Your task to perform on an android device: turn off wifi Image 0: 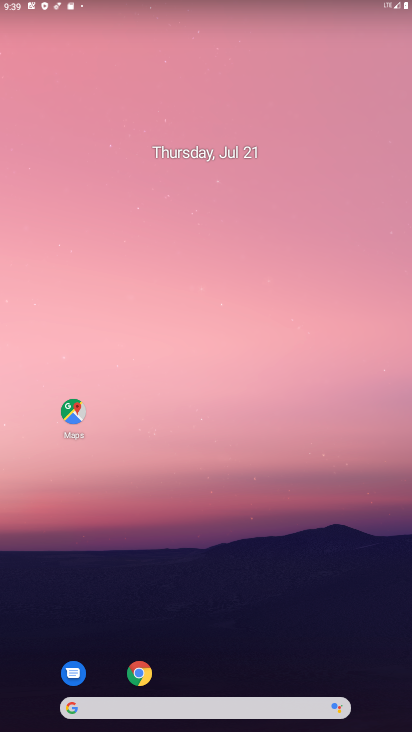
Step 0: drag from (266, 659) to (220, 199)
Your task to perform on an android device: turn off wifi Image 1: 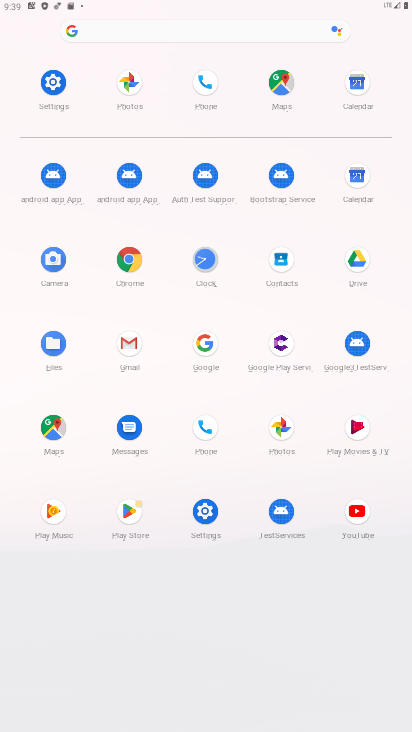
Step 1: click (57, 93)
Your task to perform on an android device: turn off wifi Image 2: 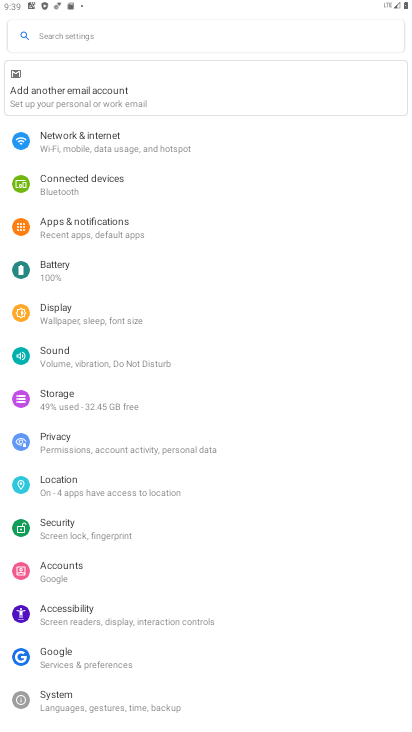
Step 2: click (97, 153)
Your task to perform on an android device: turn off wifi Image 3: 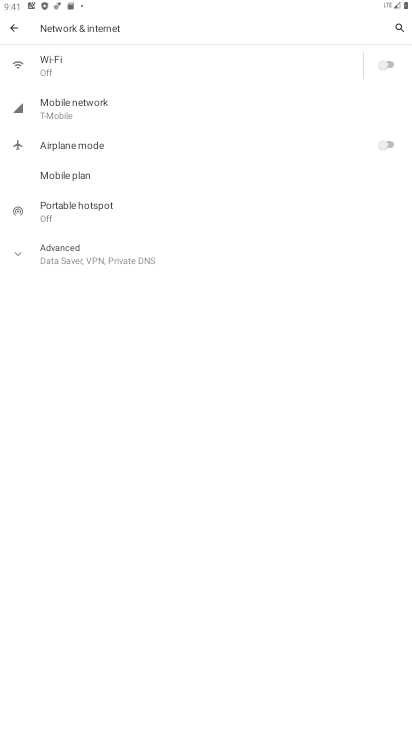
Step 3: task complete